Your task to perform on an android device: Open wifi settings Image 0: 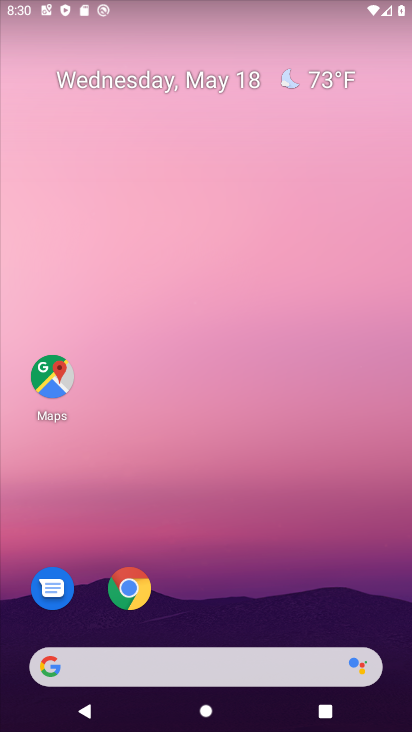
Step 0: drag from (353, 588) to (213, 96)
Your task to perform on an android device: Open wifi settings Image 1: 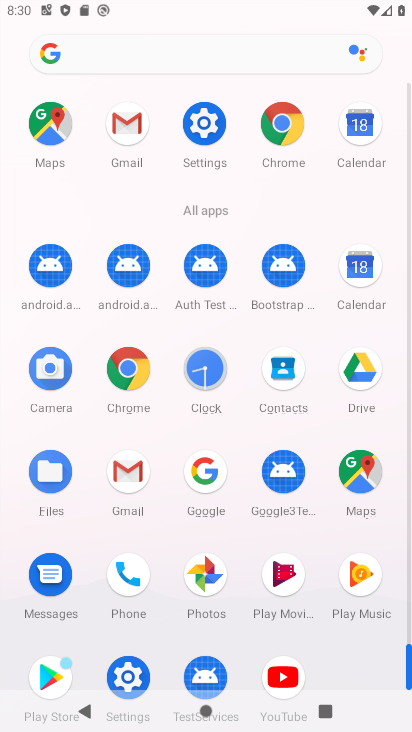
Step 1: click (216, 134)
Your task to perform on an android device: Open wifi settings Image 2: 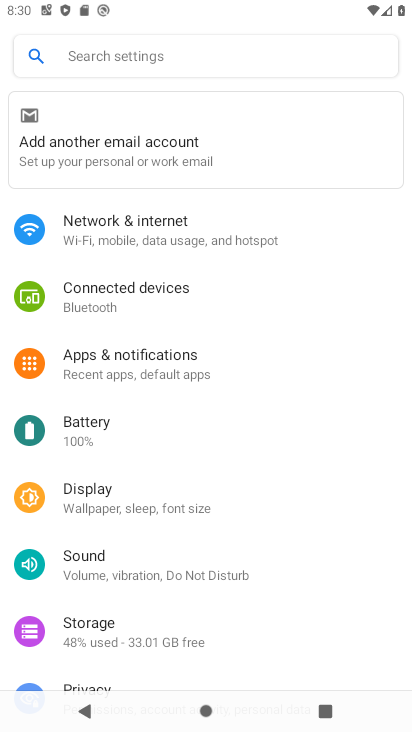
Step 2: click (174, 56)
Your task to perform on an android device: Open wifi settings Image 3: 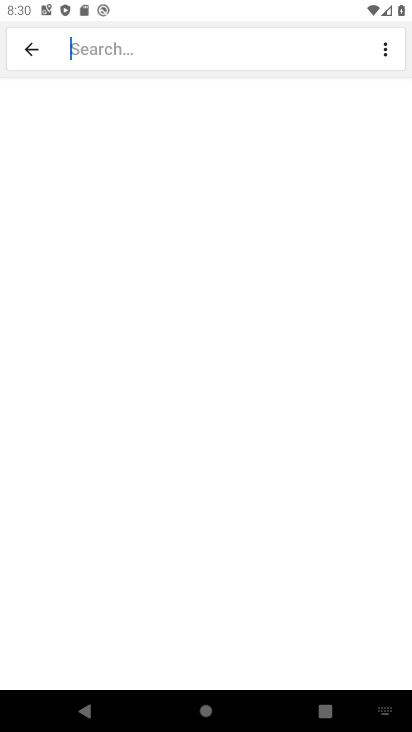
Step 3: click (21, 47)
Your task to perform on an android device: Open wifi settings Image 4: 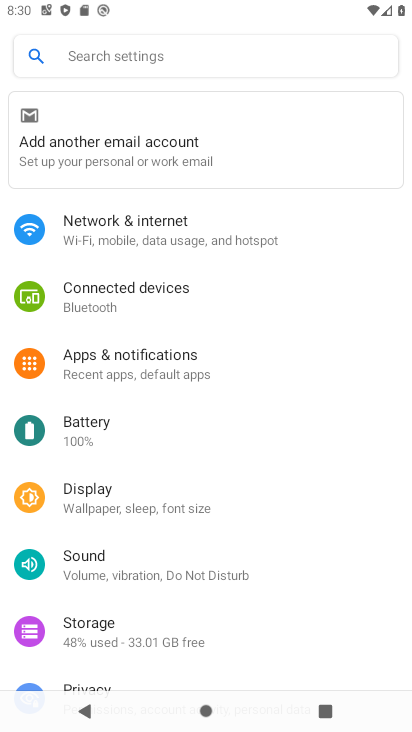
Step 4: click (171, 244)
Your task to perform on an android device: Open wifi settings Image 5: 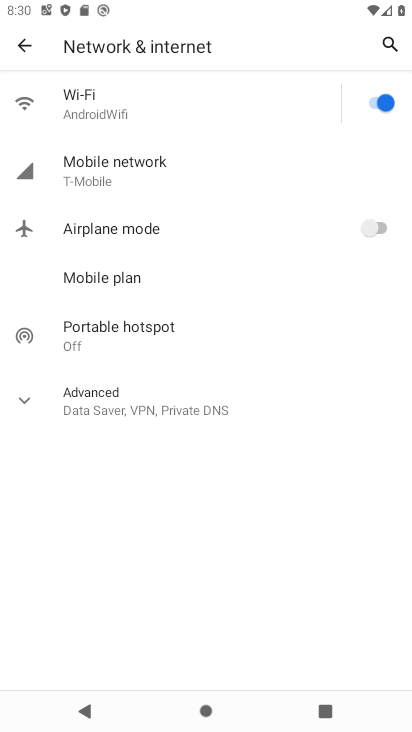
Step 5: click (195, 106)
Your task to perform on an android device: Open wifi settings Image 6: 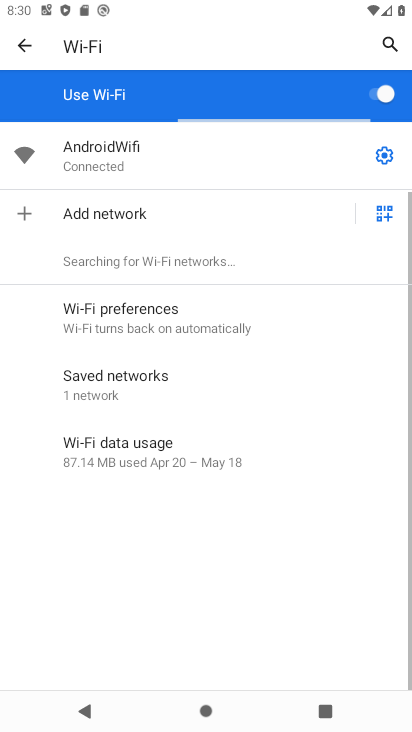
Step 6: click (394, 149)
Your task to perform on an android device: Open wifi settings Image 7: 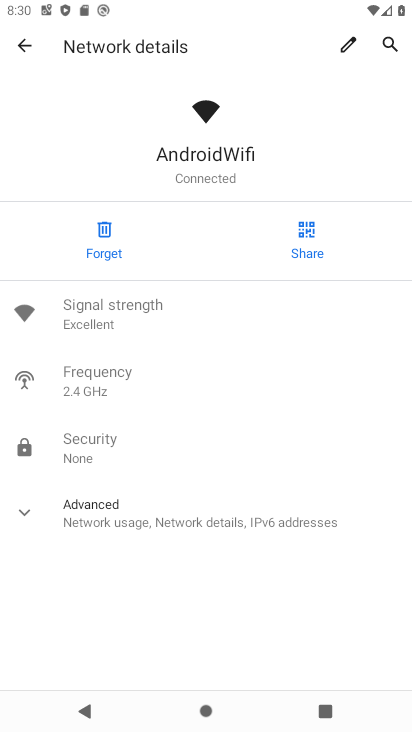
Step 7: task complete